Your task to perform on an android device: toggle data saver in the chrome app Image 0: 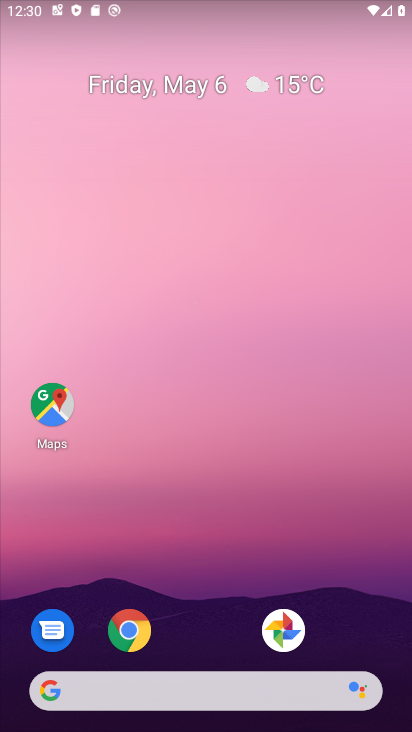
Step 0: drag from (221, 620) to (220, 80)
Your task to perform on an android device: toggle data saver in the chrome app Image 1: 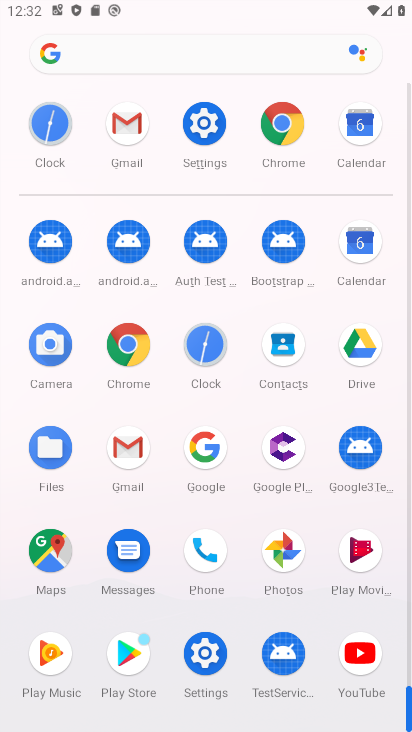
Step 1: click (244, 4)
Your task to perform on an android device: toggle data saver in the chrome app Image 2: 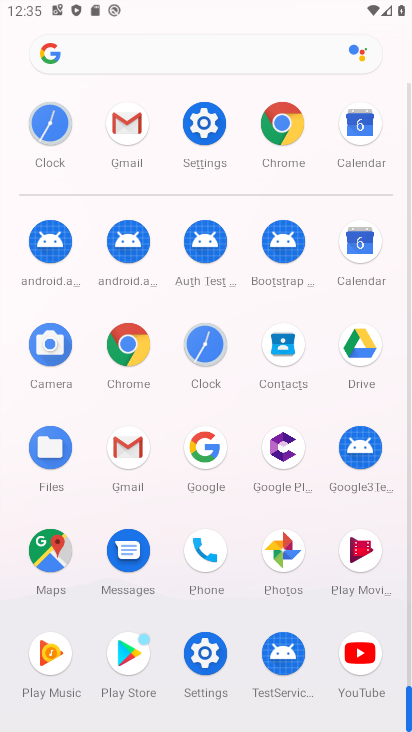
Step 2: click (289, 119)
Your task to perform on an android device: toggle data saver in the chrome app Image 3: 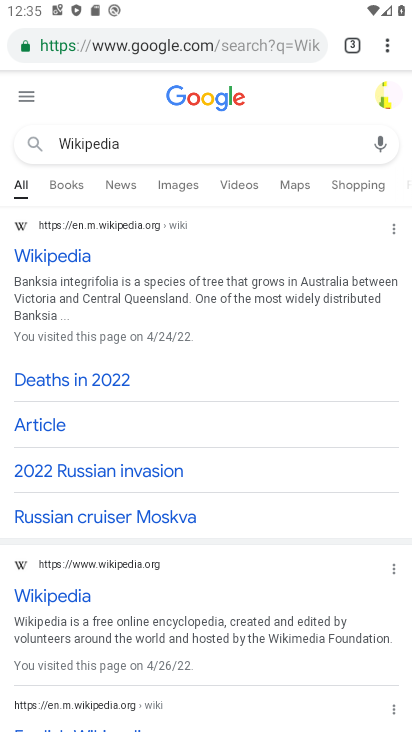
Step 3: drag from (385, 50) to (198, 509)
Your task to perform on an android device: toggle data saver in the chrome app Image 4: 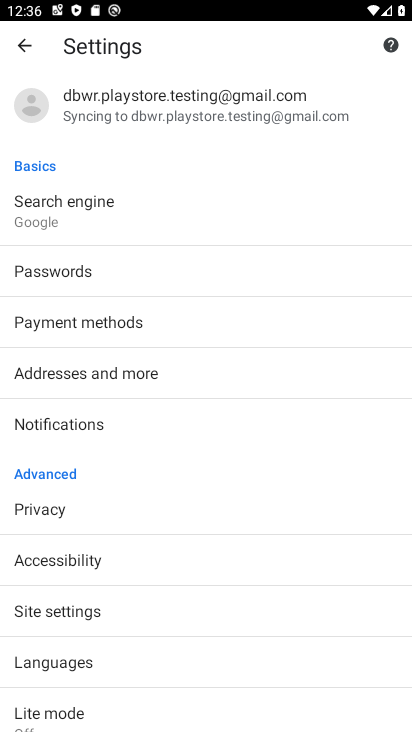
Step 4: drag from (159, 681) to (201, 248)
Your task to perform on an android device: toggle data saver in the chrome app Image 5: 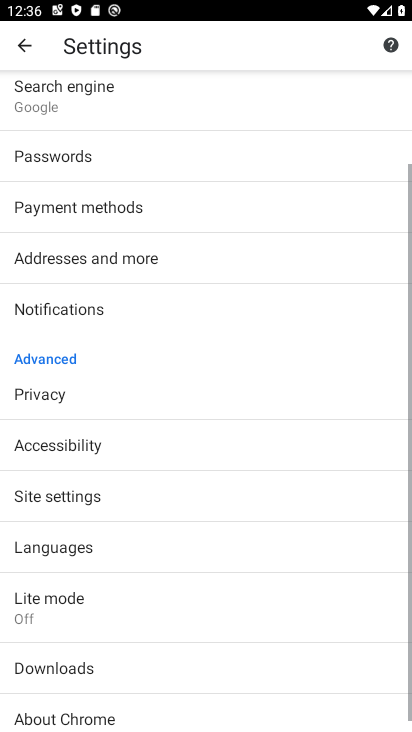
Step 5: click (55, 607)
Your task to perform on an android device: toggle data saver in the chrome app Image 6: 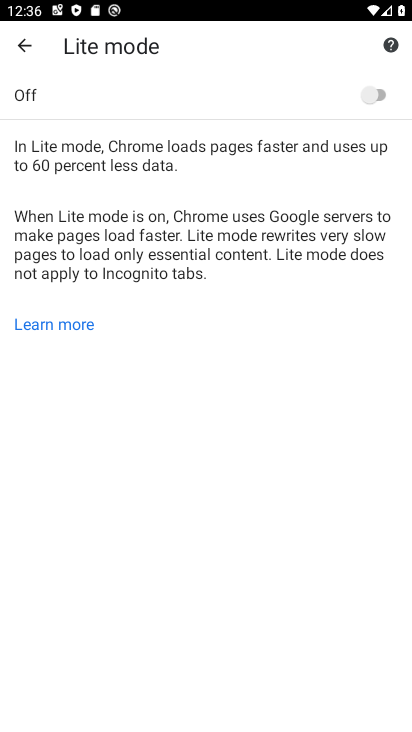
Step 6: click (375, 93)
Your task to perform on an android device: toggle data saver in the chrome app Image 7: 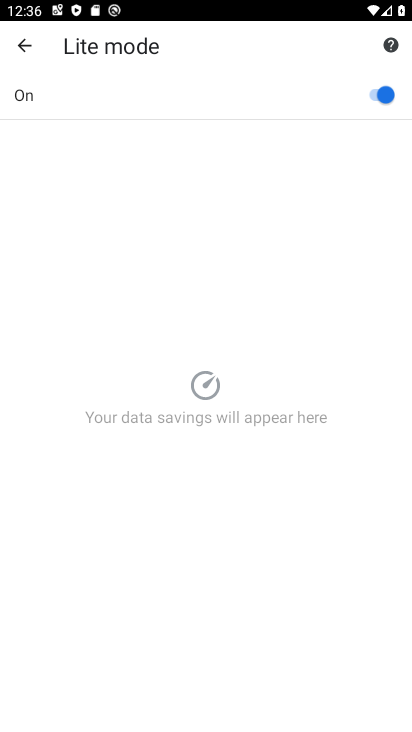
Step 7: task complete